Your task to perform on an android device: add a contact Image 0: 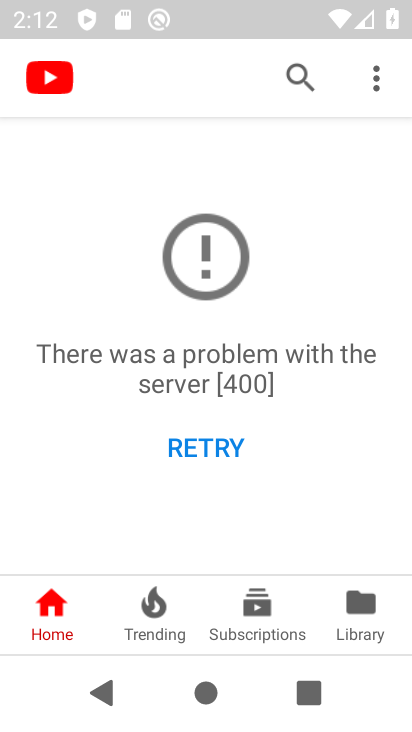
Step 0: press home button
Your task to perform on an android device: add a contact Image 1: 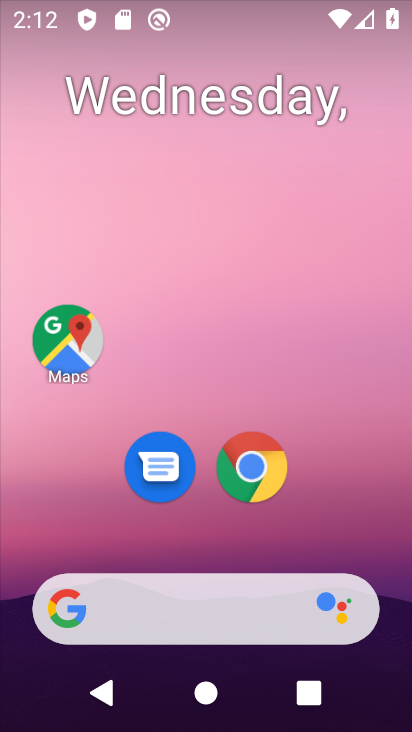
Step 1: drag from (158, 619) to (272, 207)
Your task to perform on an android device: add a contact Image 2: 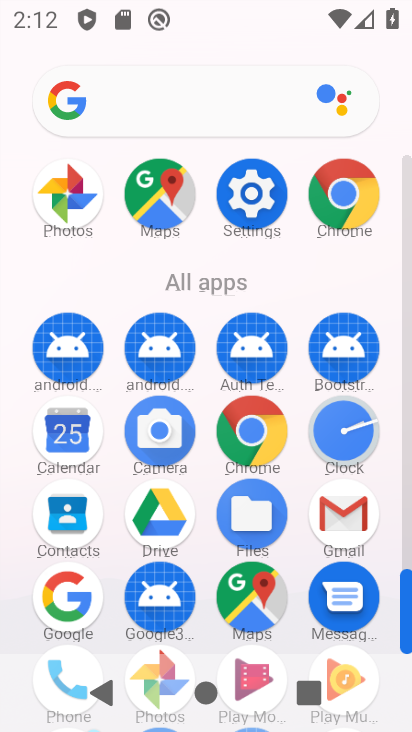
Step 2: click (69, 522)
Your task to perform on an android device: add a contact Image 3: 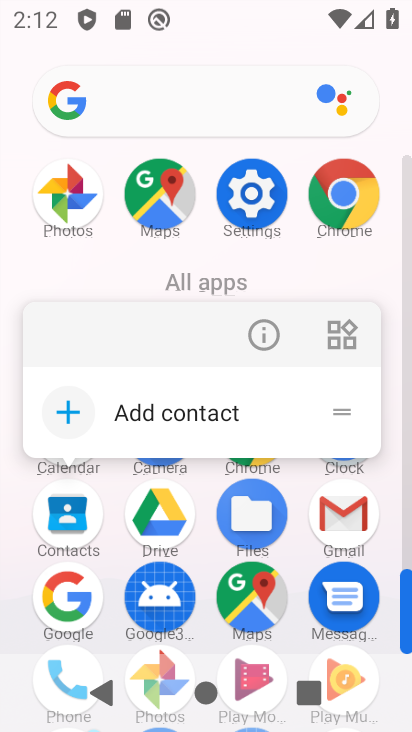
Step 3: click (68, 514)
Your task to perform on an android device: add a contact Image 4: 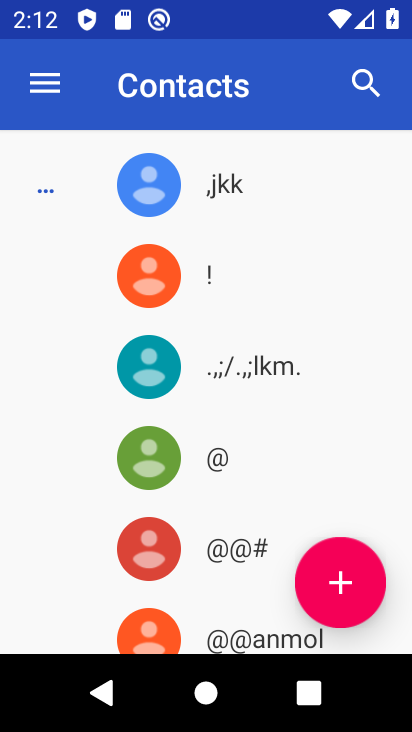
Step 4: click (333, 571)
Your task to perform on an android device: add a contact Image 5: 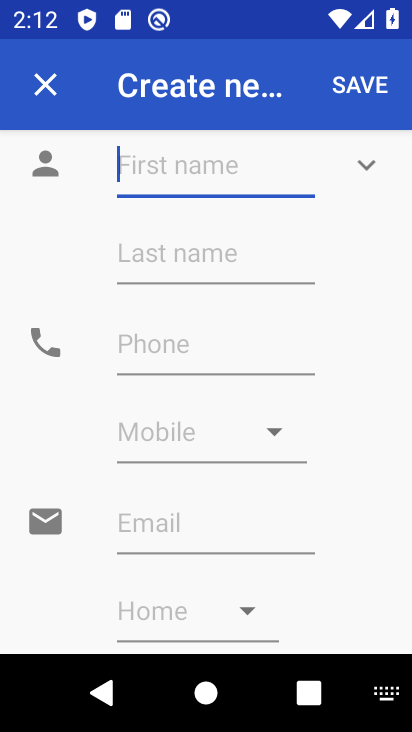
Step 5: type "tghfdhj"
Your task to perform on an android device: add a contact Image 6: 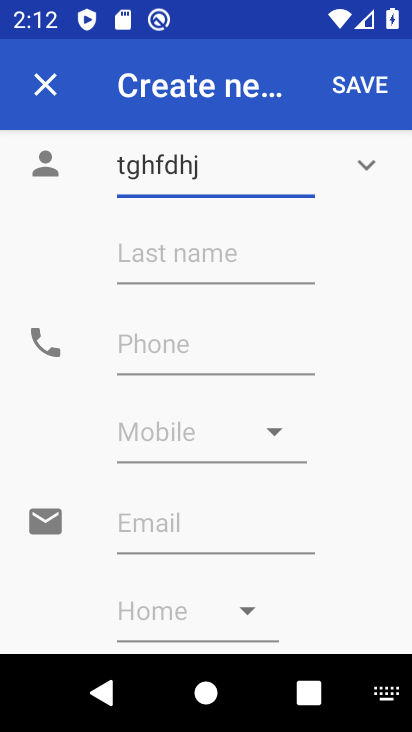
Step 6: click (162, 344)
Your task to perform on an android device: add a contact Image 7: 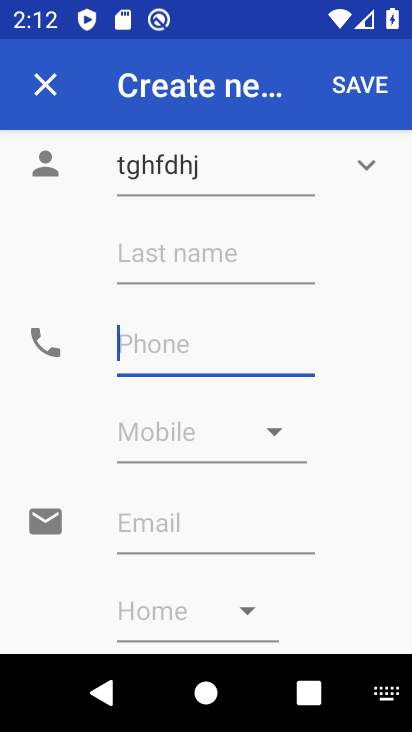
Step 7: type "38457655"
Your task to perform on an android device: add a contact Image 8: 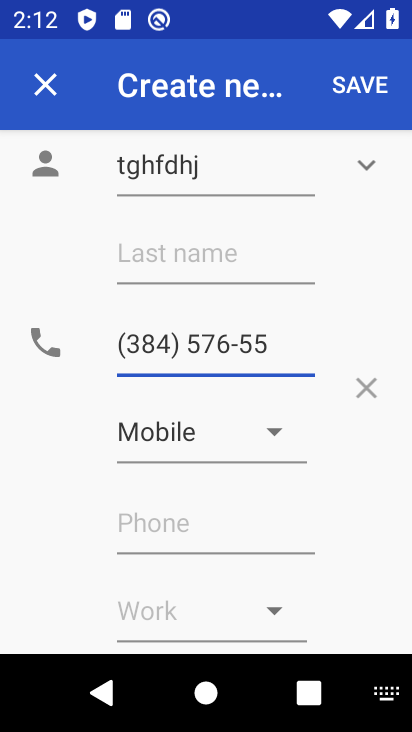
Step 8: click (384, 81)
Your task to perform on an android device: add a contact Image 9: 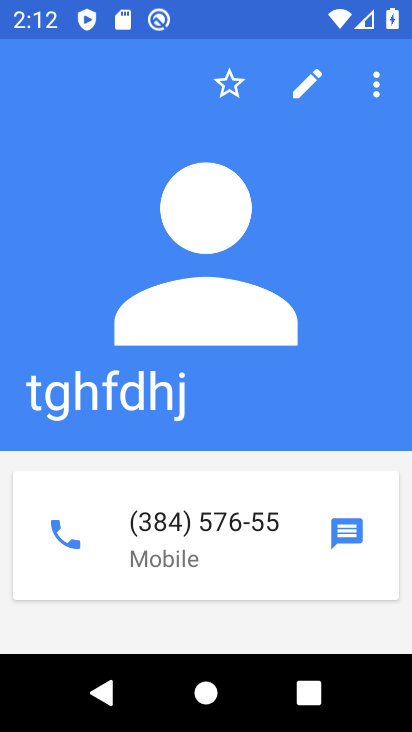
Step 9: task complete